Your task to perform on an android device: check storage Image 0: 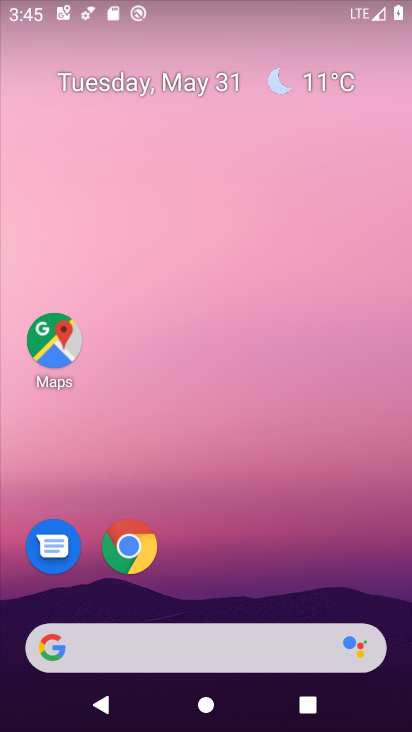
Step 0: press home button
Your task to perform on an android device: check storage Image 1: 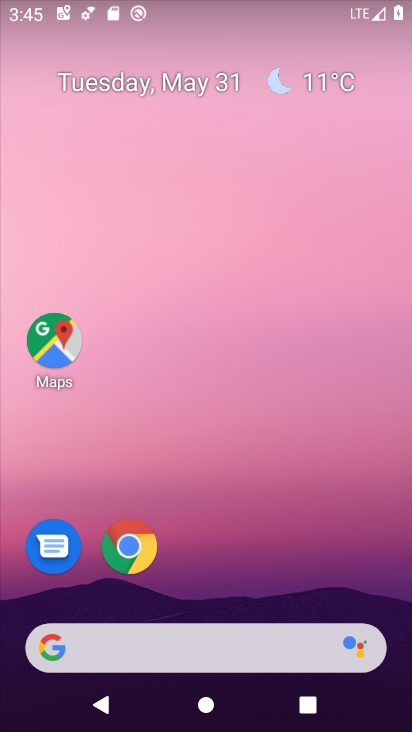
Step 1: drag from (291, 504) to (153, 1)
Your task to perform on an android device: check storage Image 2: 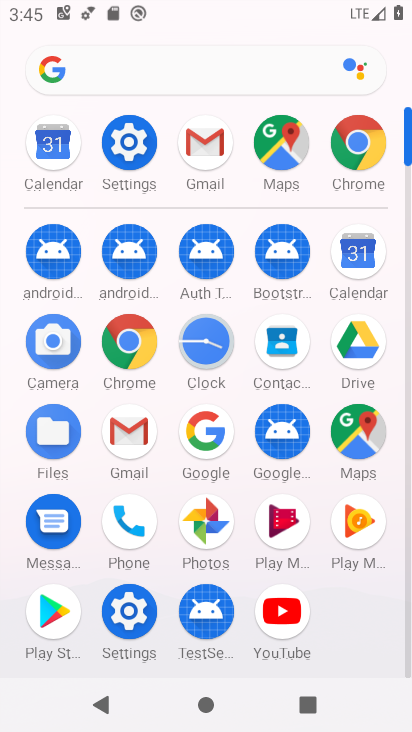
Step 2: click (119, 114)
Your task to perform on an android device: check storage Image 3: 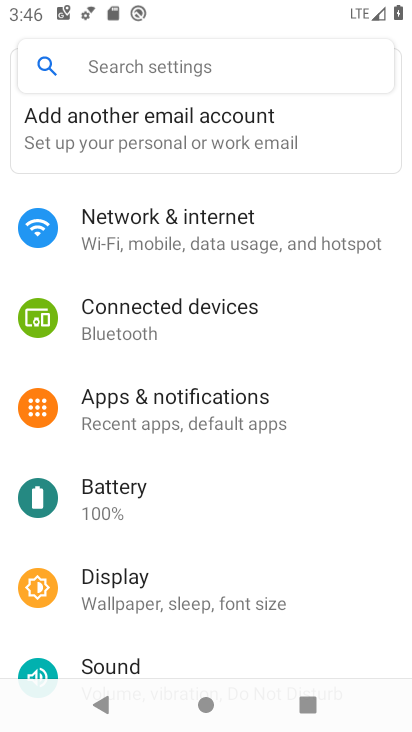
Step 3: drag from (281, 499) to (232, 138)
Your task to perform on an android device: check storage Image 4: 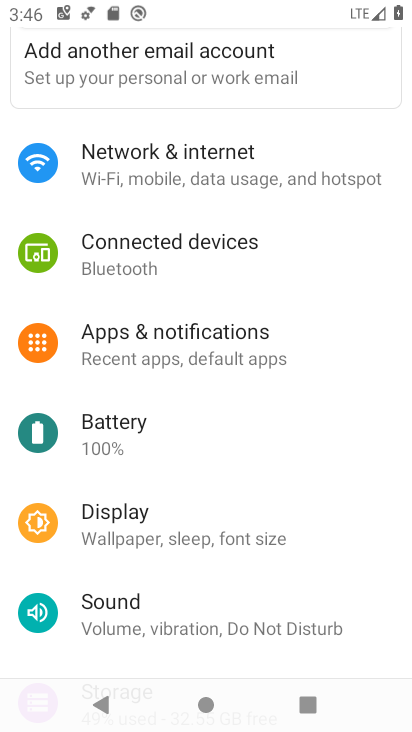
Step 4: drag from (231, 412) to (231, 131)
Your task to perform on an android device: check storage Image 5: 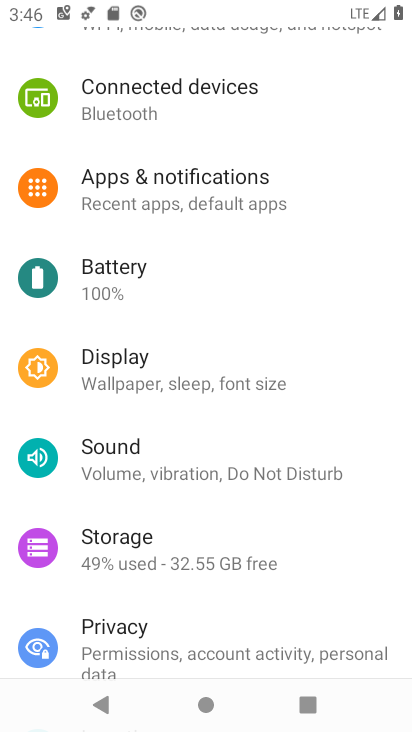
Step 5: click (205, 540)
Your task to perform on an android device: check storage Image 6: 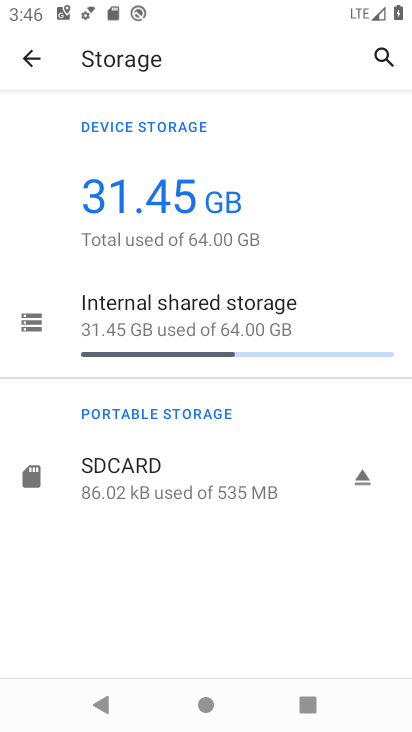
Step 6: task complete